Your task to perform on an android device: Find coffee shops on Maps Image 0: 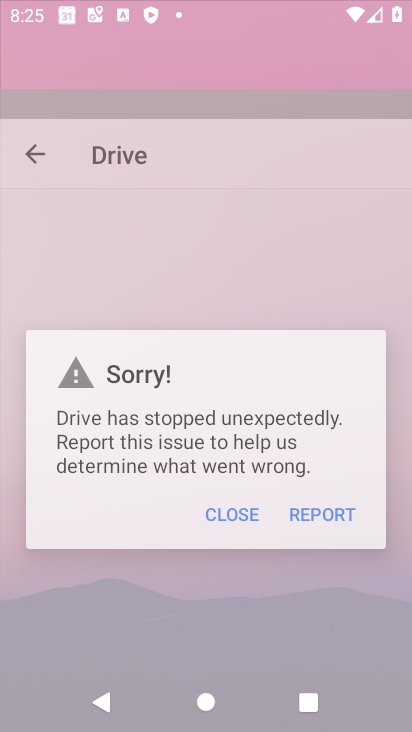
Step 0: click (368, 291)
Your task to perform on an android device: Find coffee shops on Maps Image 1: 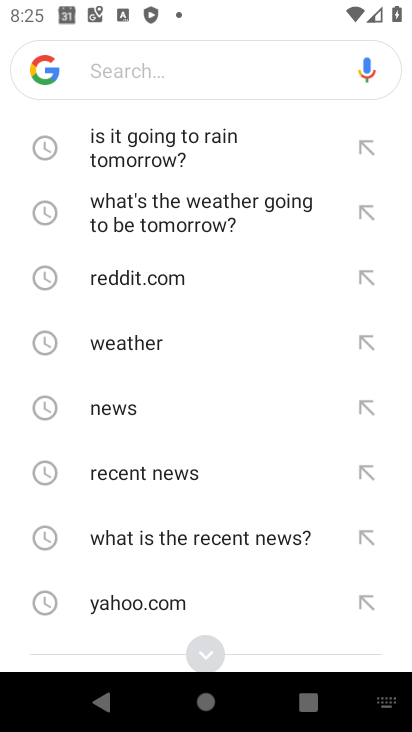
Step 1: press home button
Your task to perform on an android device: Find coffee shops on Maps Image 2: 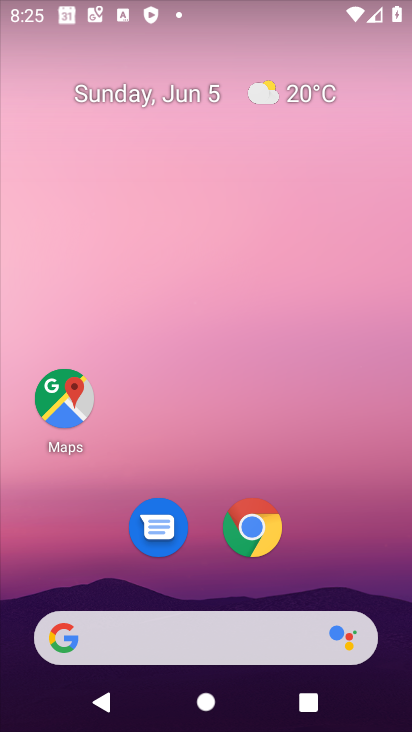
Step 2: click (66, 394)
Your task to perform on an android device: Find coffee shops on Maps Image 3: 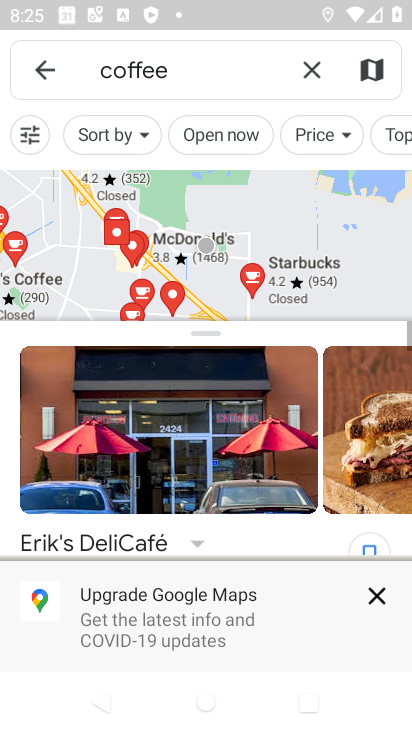
Step 3: task complete